Your task to perform on an android device: Find coffee shops on Maps Image 0: 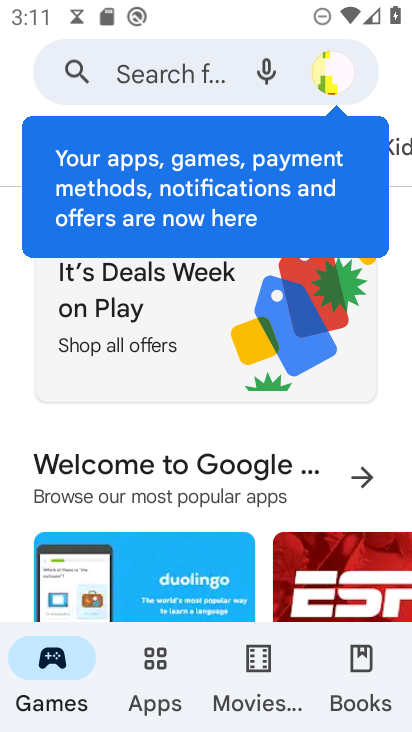
Step 0: press home button
Your task to perform on an android device: Find coffee shops on Maps Image 1: 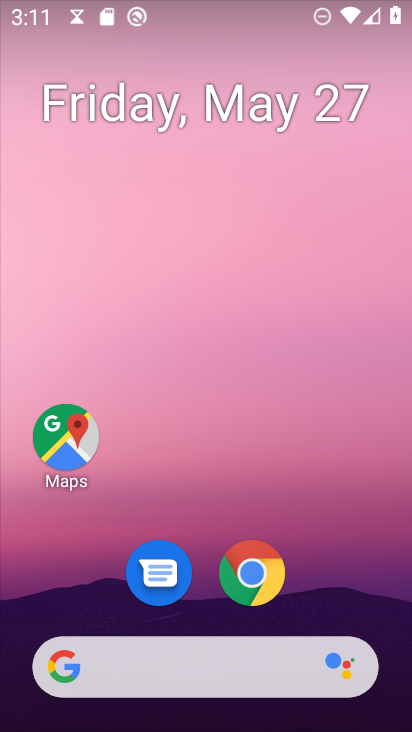
Step 1: click (48, 444)
Your task to perform on an android device: Find coffee shops on Maps Image 2: 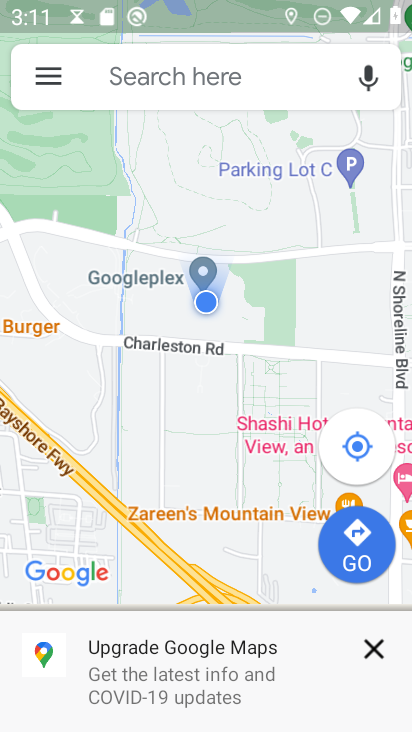
Step 2: click (193, 76)
Your task to perform on an android device: Find coffee shops on Maps Image 3: 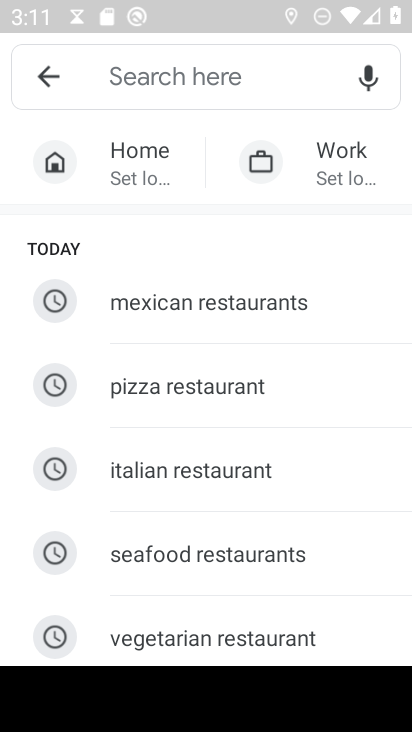
Step 3: type "coffee shops"
Your task to perform on an android device: Find coffee shops on Maps Image 4: 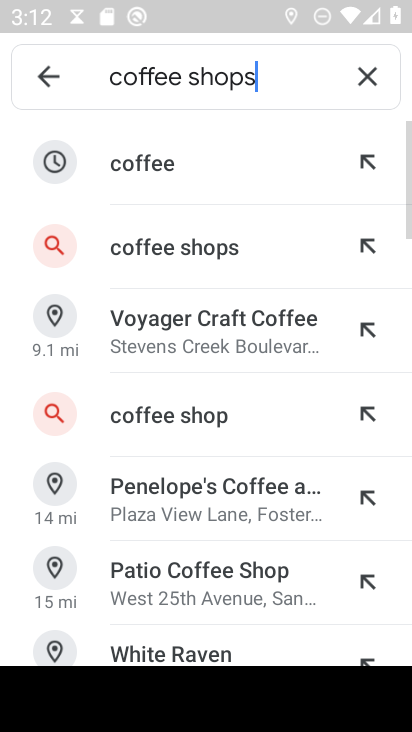
Step 4: click (142, 241)
Your task to perform on an android device: Find coffee shops on Maps Image 5: 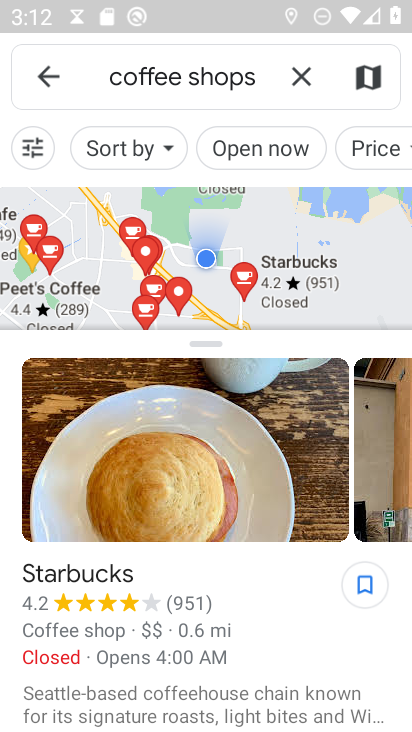
Step 5: task complete